Your task to perform on an android device: turn off location history Image 0: 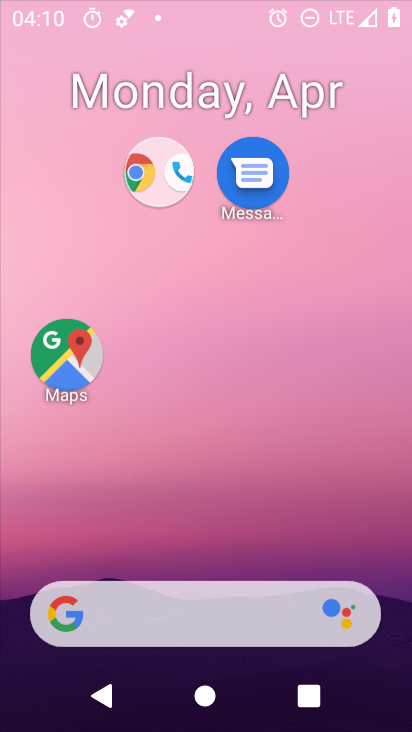
Step 0: drag from (354, 5) to (411, 637)
Your task to perform on an android device: turn off location history Image 1: 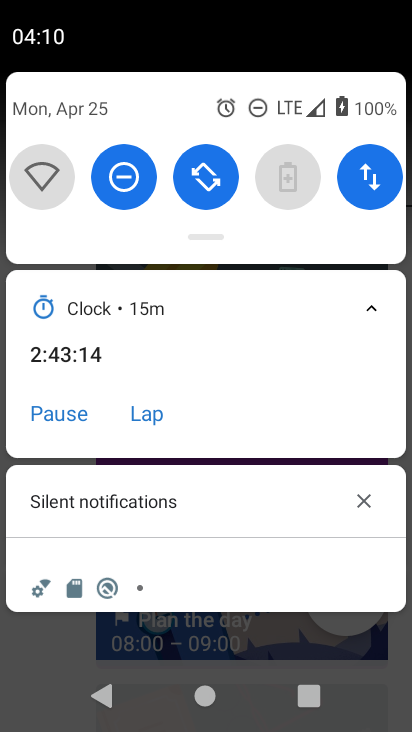
Step 1: drag from (215, 637) to (168, 84)
Your task to perform on an android device: turn off location history Image 2: 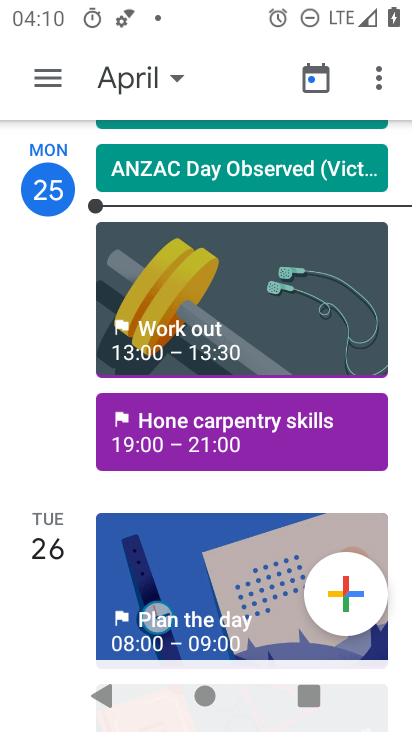
Step 2: press home button
Your task to perform on an android device: turn off location history Image 3: 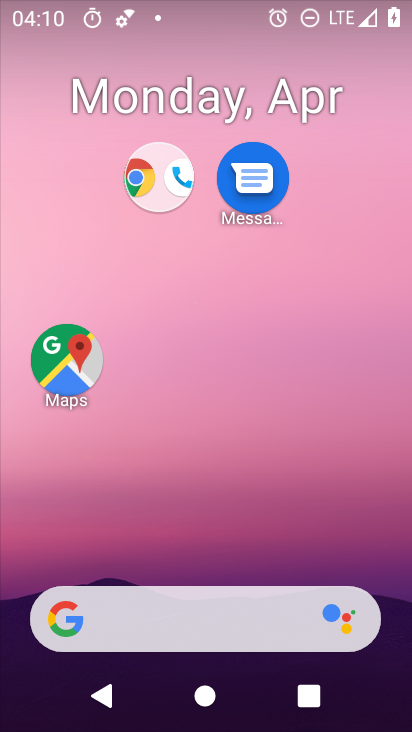
Step 3: drag from (290, 555) to (295, 54)
Your task to perform on an android device: turn off location history Image 4: 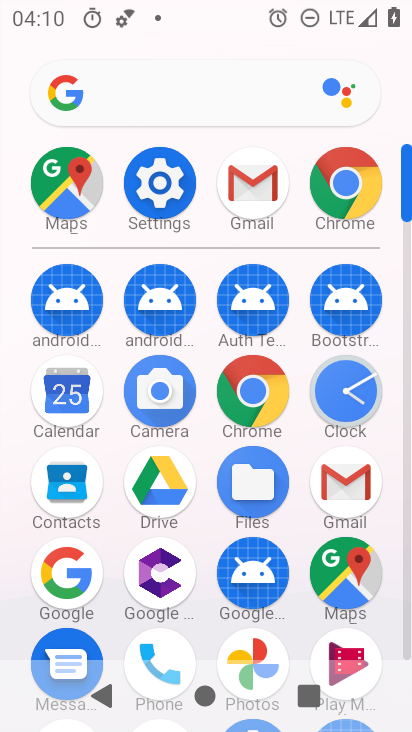
Step 4: drag from (290, 637) to (289, 55)
Your task to perform on an android device: turn off location history Image 5: 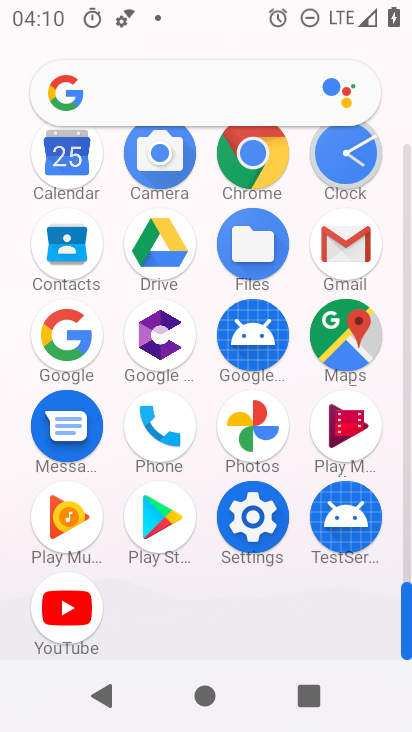
Step 5: click (255, 523)
Your task to perform on an android device: turn off location history Image 6: 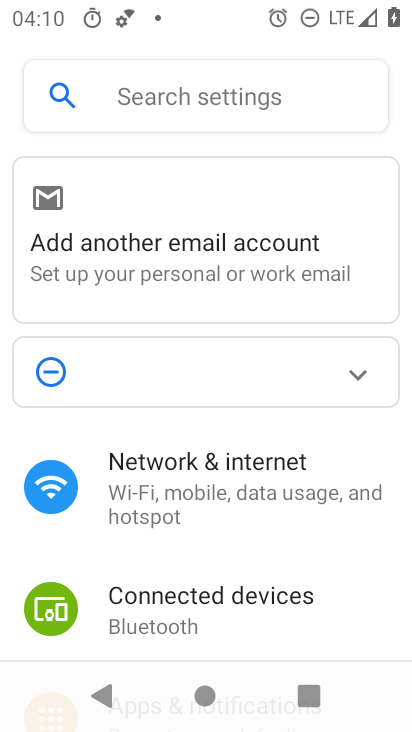
Step 6: drag from (324, 644) to (315, 40)
Your task to perform on an android device: turn off location history Image 7: 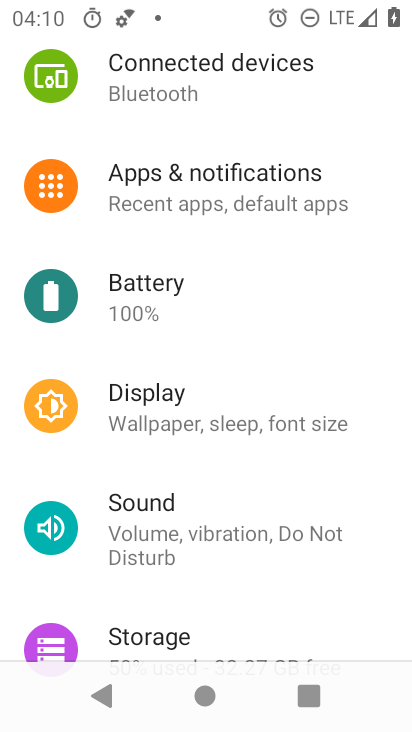
Step 7: drag from (300, 589) to (294, 66)
Your task to perform on an android device: turn off location history Image 8: 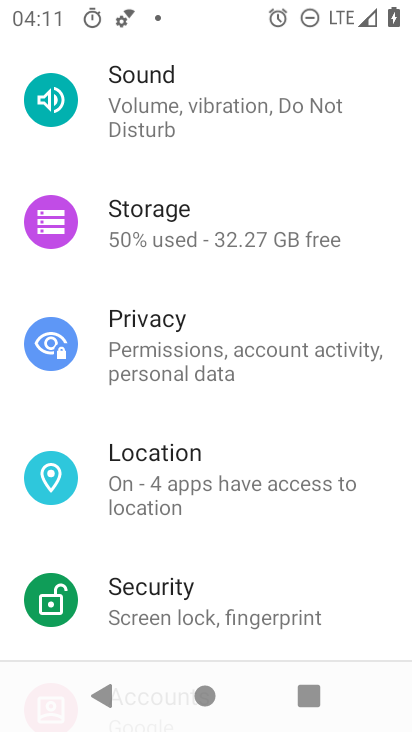
Step 8: click (233, 480)
Your task to perform on an android device: turn off location history Image 9: 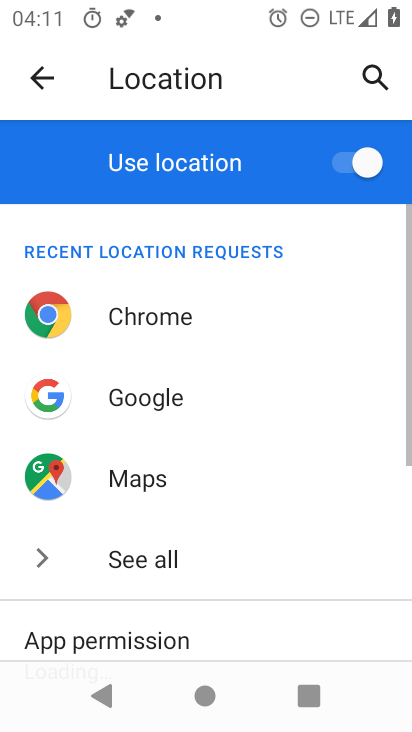
Step 9: drag from (234, 640) to (235, 230)
Your task to perform on an android device: turn off location history Image 10: 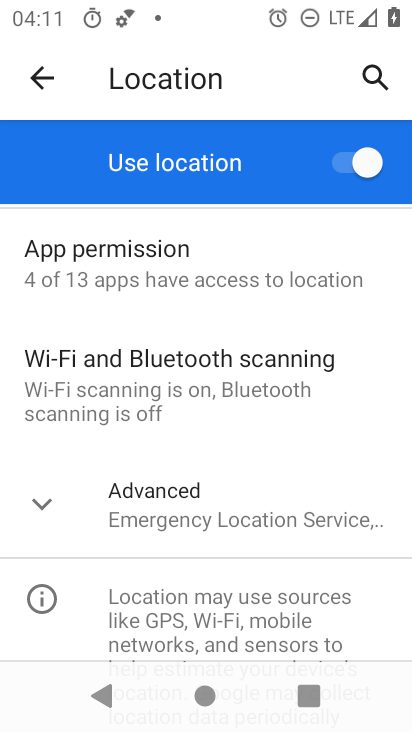
Step 10: click (346, 160)
Your task to perform on an android device: turn off location history Image 11: 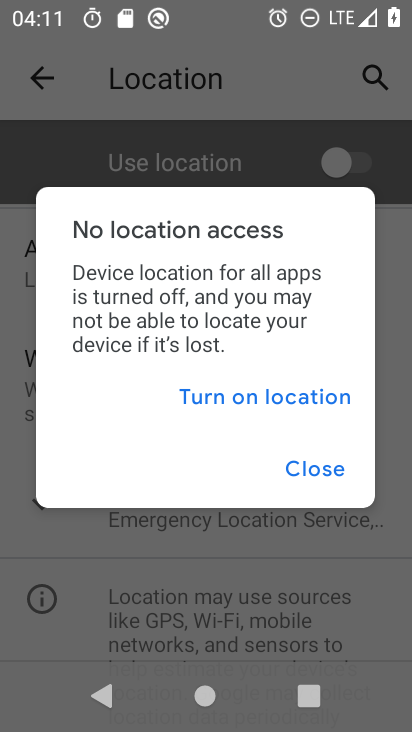
Step 11: click (326, 468)
Your task to perform on an android device: turn off location history Image 12: 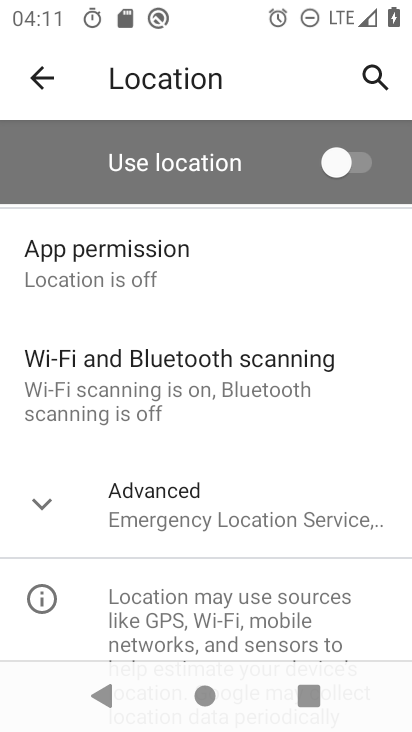
Step 12: task complete